Your task to perform on an android device: Search for Mexican restaurants on Maps Image 0: 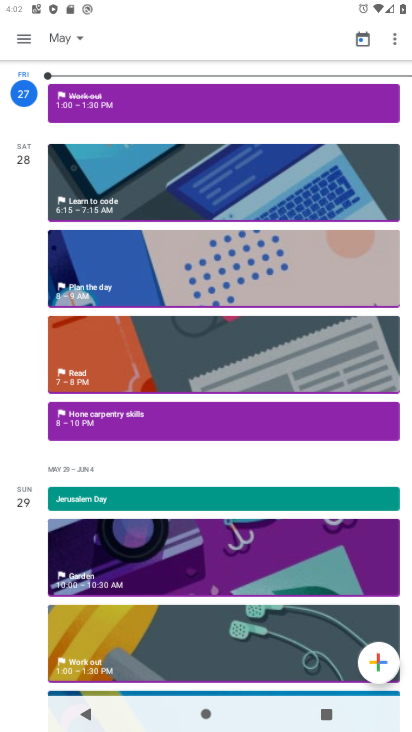
Step 0: drag from (200, 649) to (233, 224)
Your task to perform on an android device: Search for Mexican restaurants on Maps Image 1: 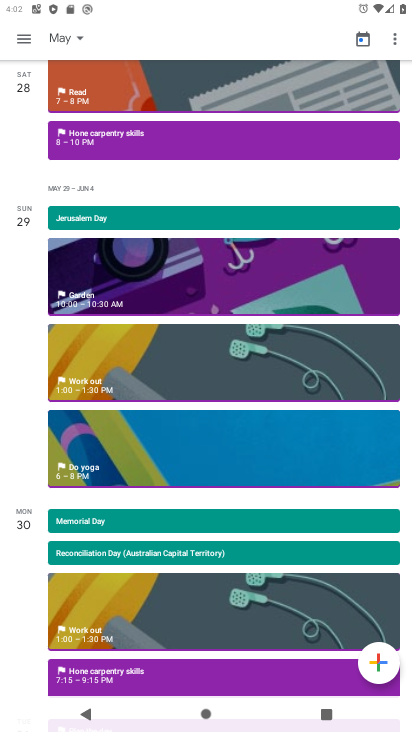
Step 1: press home button
Your task to perform on an android device: Search for Mexican restaurants on Maps Image 2: 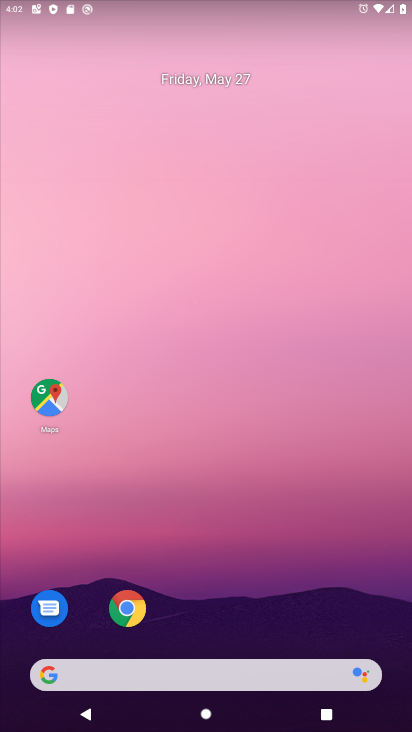
Step 2: drag from (202, 659) to (251, 208)
Your task to perform on an android device: Search for Mexican restaurants on Maps Image 3: 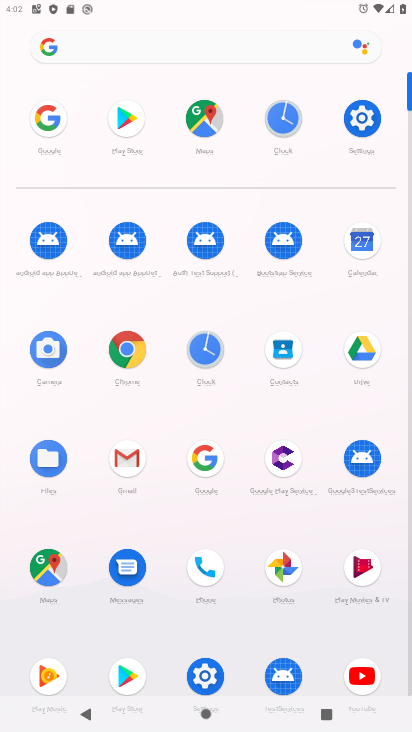
Step 3: click (43, 566)
Your task to perform on an android device: Search for Mexican restaurants on Maps Image 4: 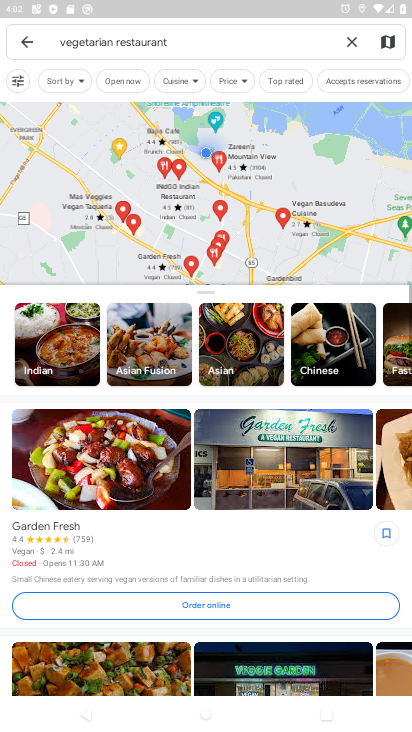
Step 4: click (360, 37)
Your task to perform on an android device: Search for Mexican restaurants on Maps Image 5: 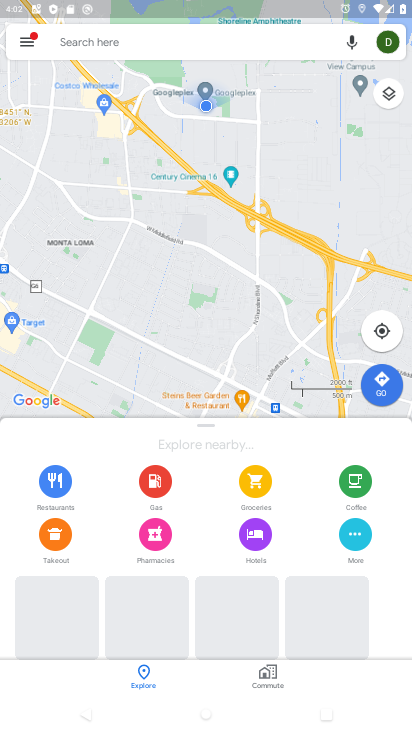
Step 5: click (170, 45)
Your task to perform on an android device: Search for Mexican restaurants on Maps Image 6: 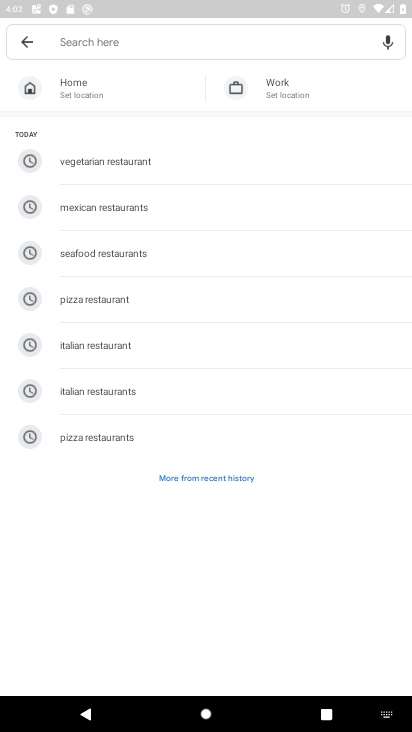
Step 6: click (124, 202)
Your task to perform on an android device: Search for Mexican restaurants on Maps Image 7: 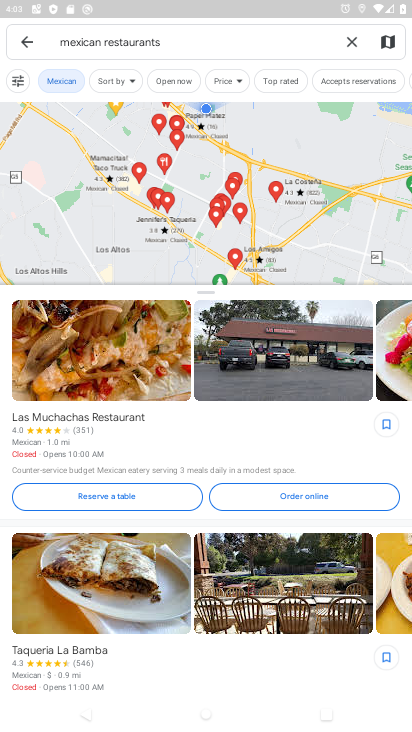
Step 7: task complete